Your task to perform on an android device: Do I have any events tomorrow? Image 0: 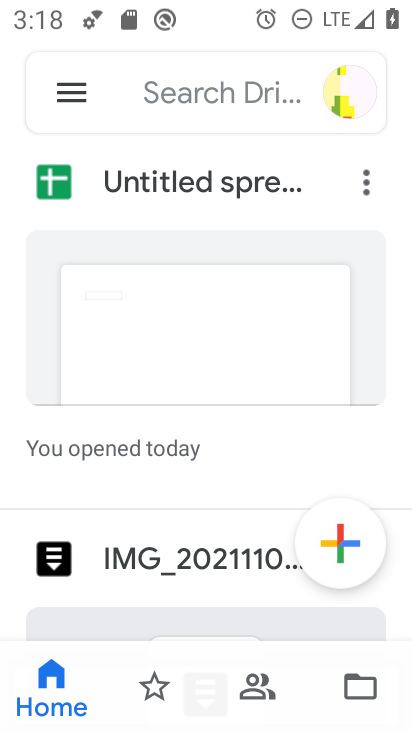
Step 0: press home button
Your task to perform on an android device: Do I have any events tomorrow? Image 1: 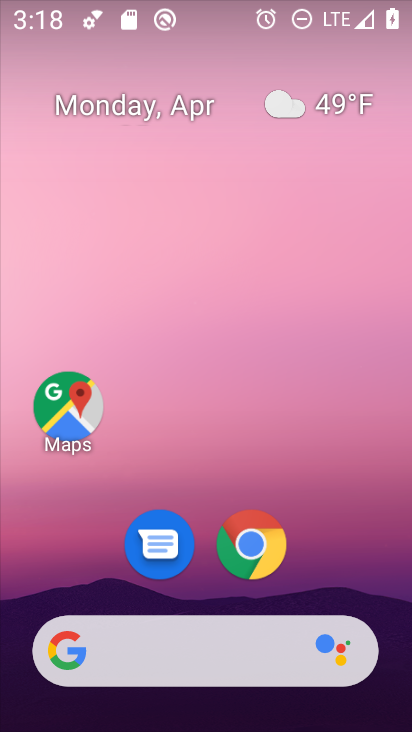
Step 1: drag from (339, 513) to (216, 9)
Your task to perform on an android device: Do I have any events tomorrow? Image 2: 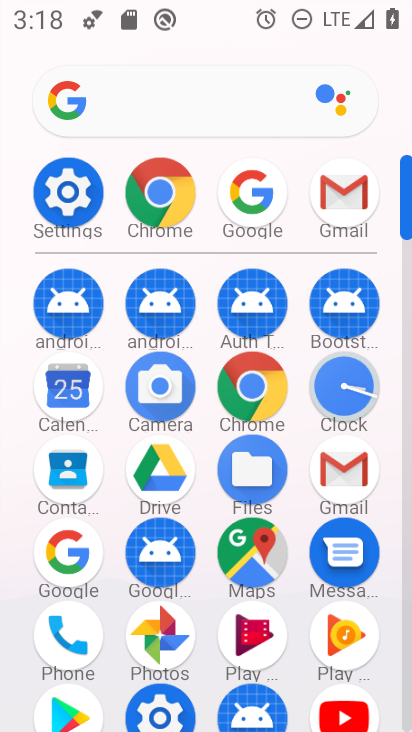
Step 2: click (64, 440)
Your task to perform on an android device: Do I have any events tomorrow? Image 3: 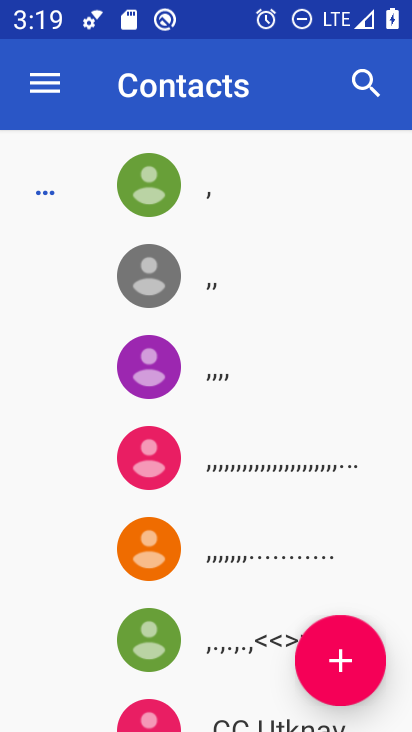
Step 3: press back button
Your task to perform on an android device: Do I have any events tomorrow? Image 4: 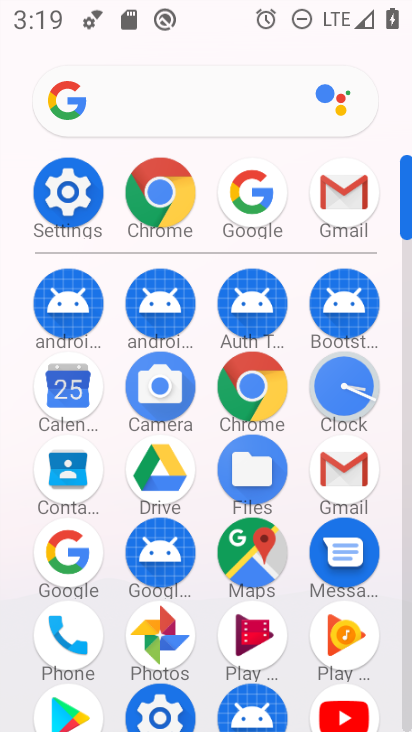
Step 4: click (62, 383)
Your task to perform on an android device: Do I have any events tomorrow? Image 5: 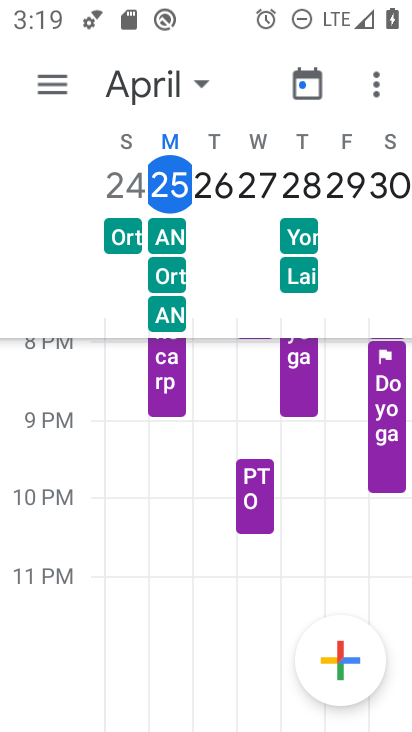
Step 5: task complete